Your task to perform on an android device: Open notification settings Image 0: 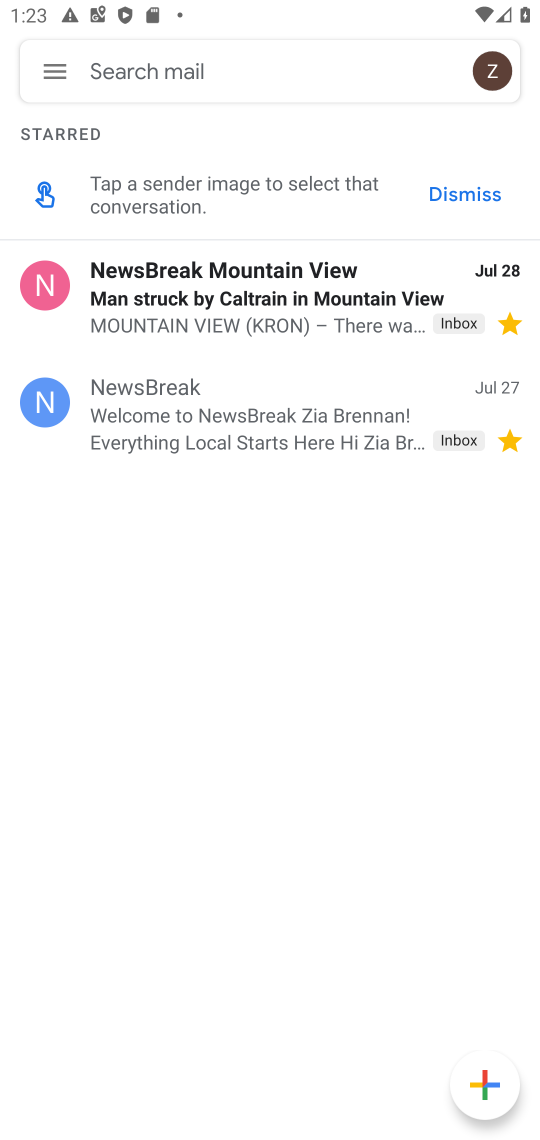
Step 0: press home button
Your task to perform on an android device: Open notification settings Image 1: 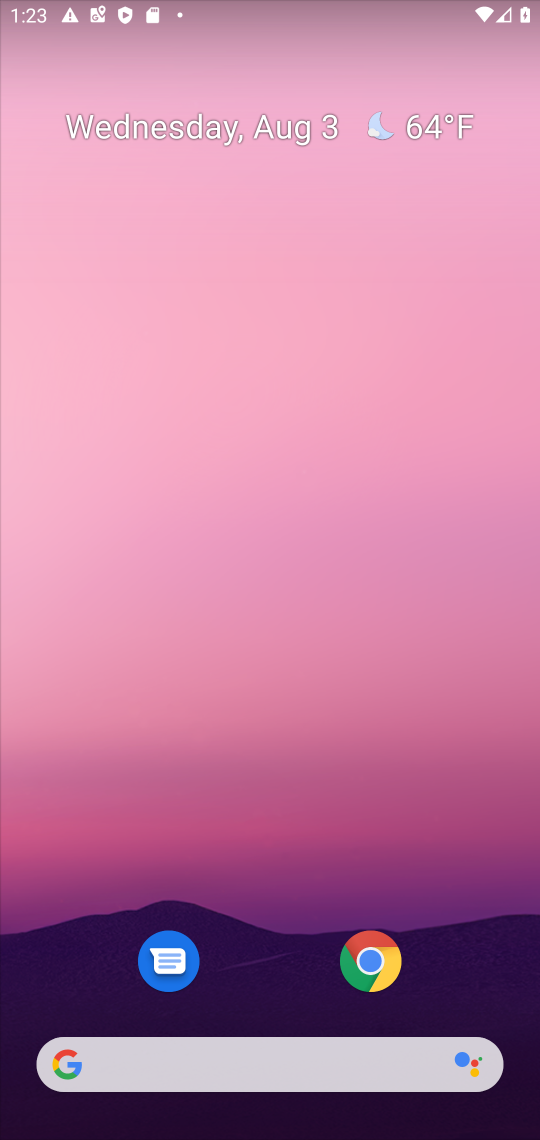
Step 1: drag from (244, 941) to (219, 94)
Your task to perform on an android device: Open notification settings Image 2: 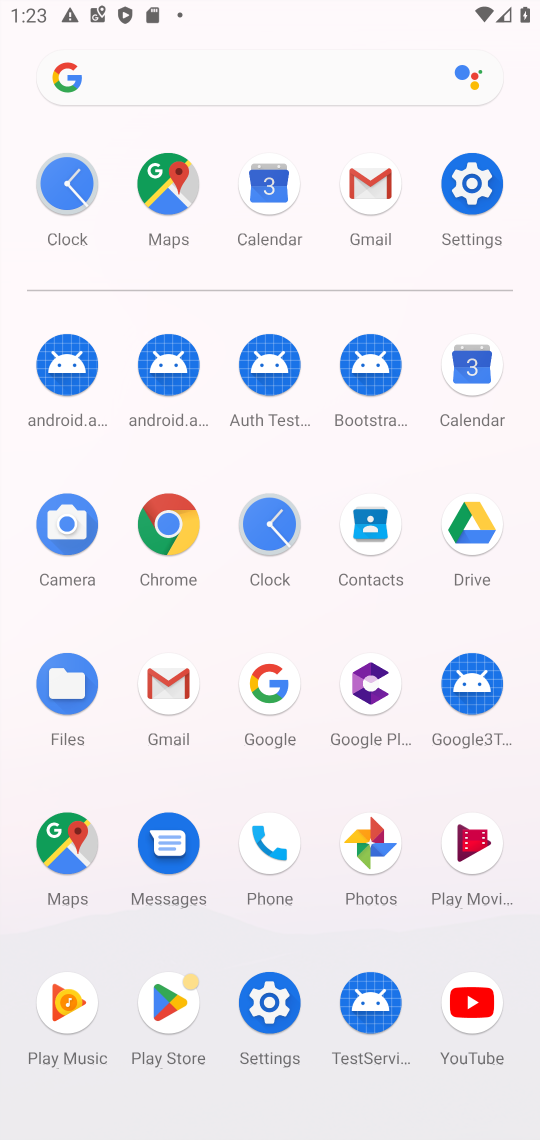
Step 2: click (469, 189)
Your task to perform on an android device: Open notification settings Image 3: 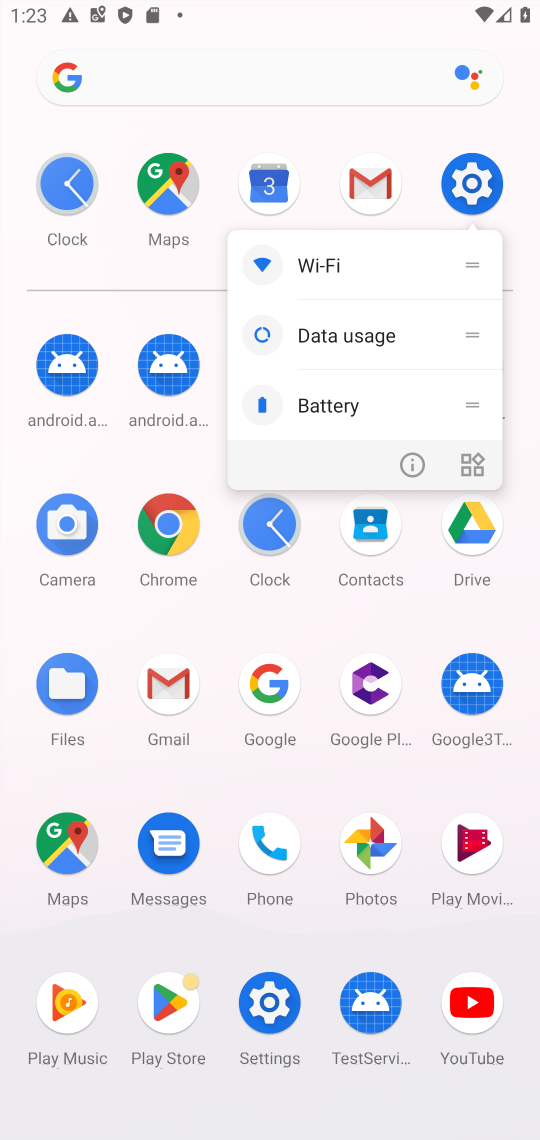
Step 3: click (461, 186)
Your task to perform on an android device: Open notification settings Image 4: 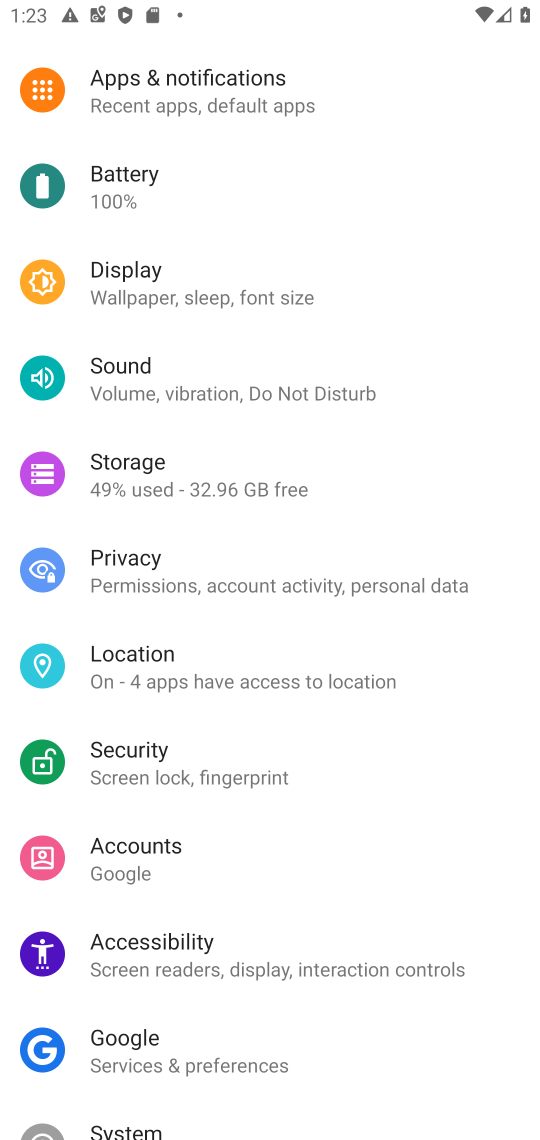
Step 4: click (142, 114)
Your task to perform on an android device: Open notification settings Image 5: 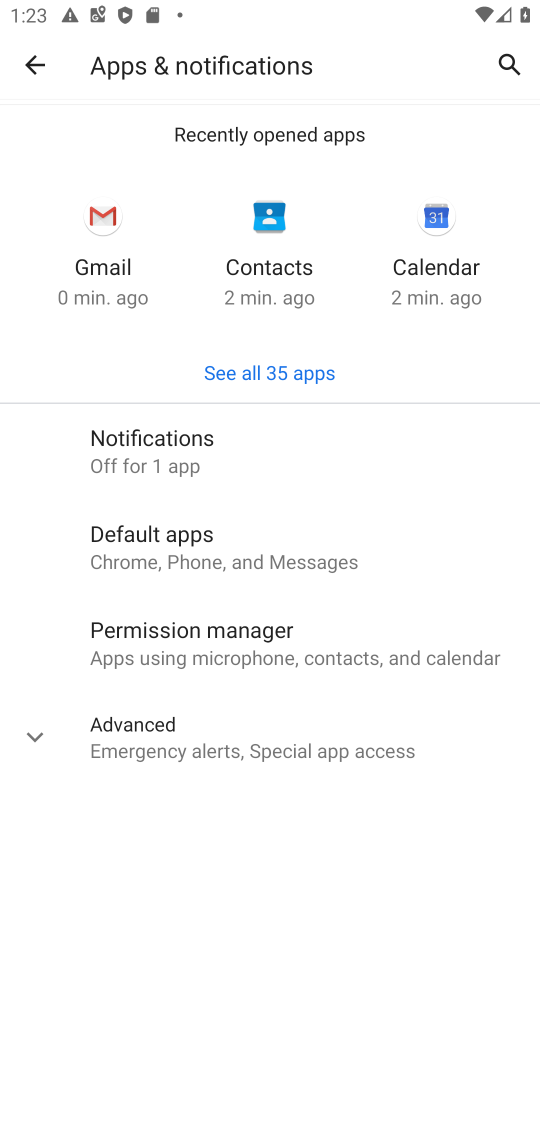
Step 5: click (146, 464)
Your task to perform on an android device: Open notification settings Image 6: 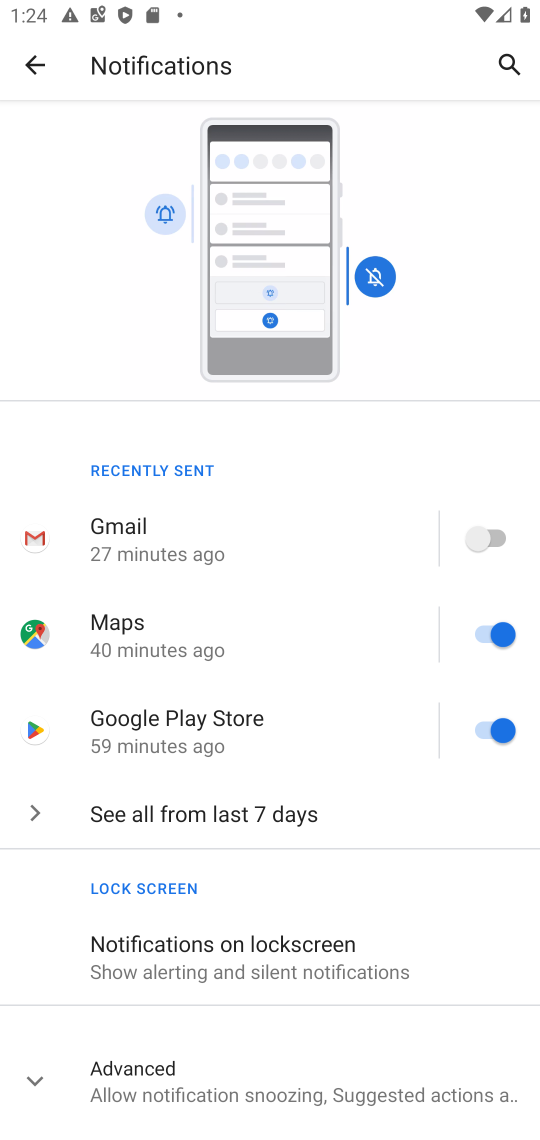
Step 6: click (173, 817)
Your task to perform on an android device: Open notification settings Image 7: 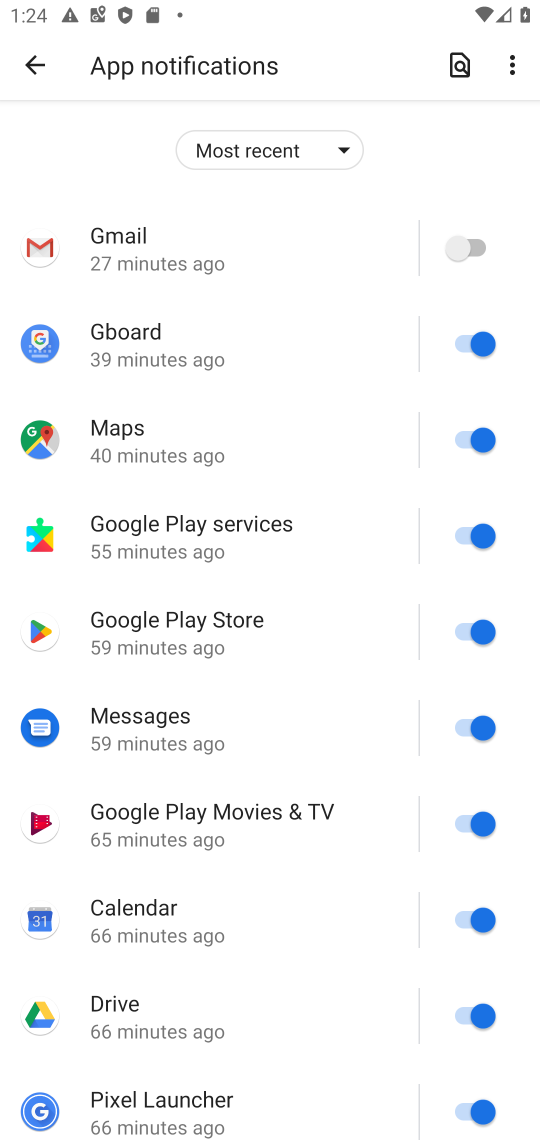
Step 7: click (342, 153)
Your task to perform on an android device: Open notification settings Image 8: 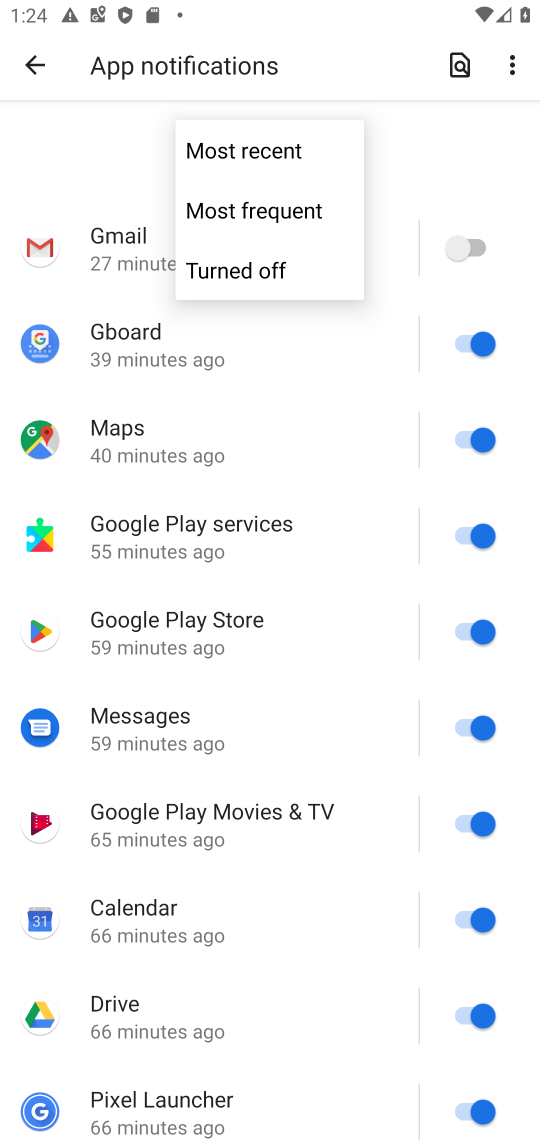
Step 8: click (278, 216)
Your task to perform on an android device: Open notification settings Image 9: 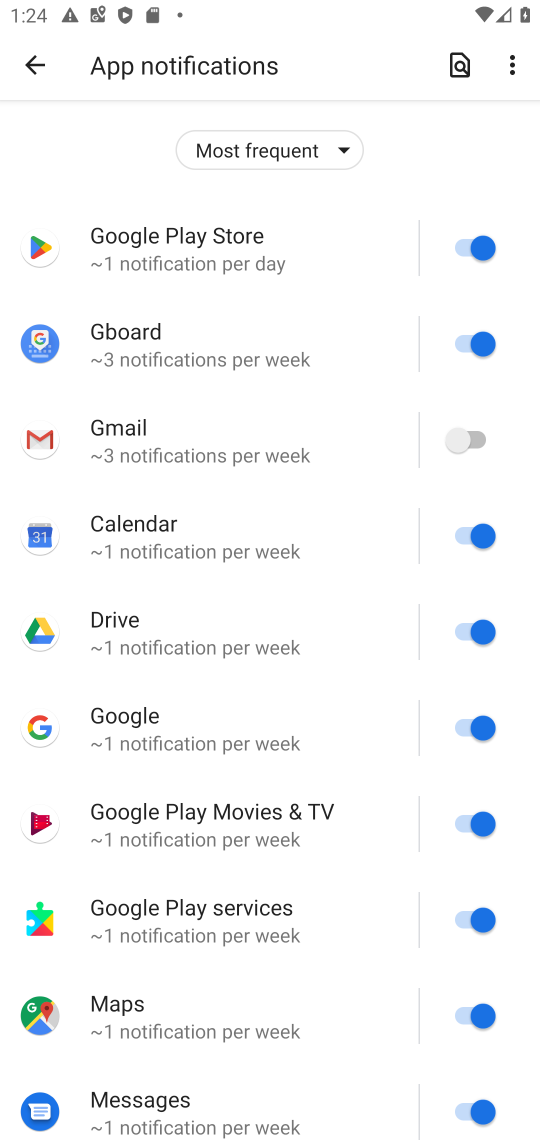
Step 9: task complete